Your task to perform on an android device: turn on location history Image 0: 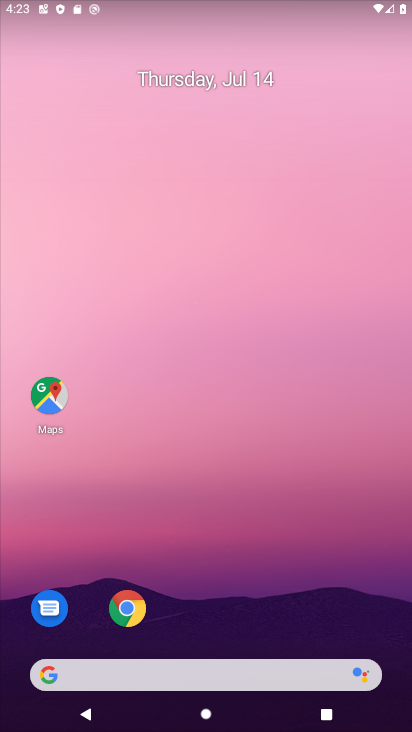
Step 0: drag from (0, 0) to (242, 241)
Your task to perform on an android device: turn on location history Image 1: 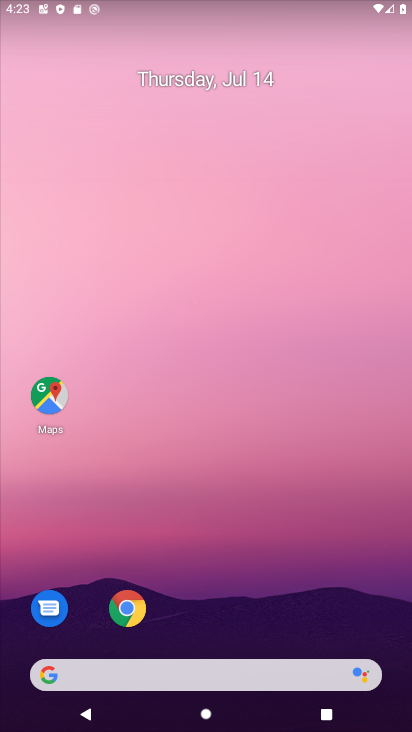
Step 1: drag from (19, 609) to (205, 261)
Your task to perform on an android device: turn on location history Image 2: 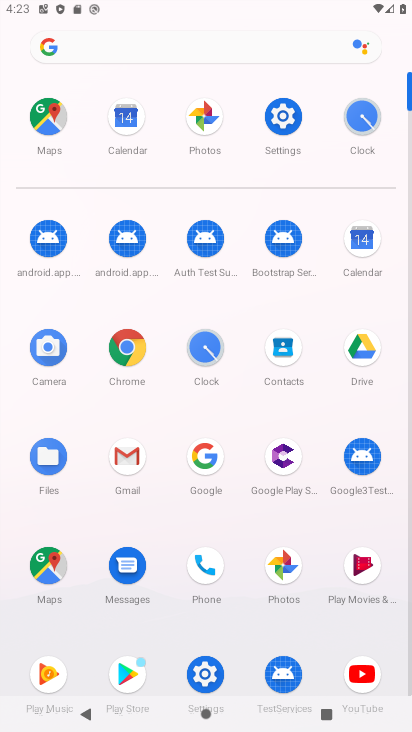
Step 2: click (285, 116)
Your task to perform on an android device: turn on location history Image 3: 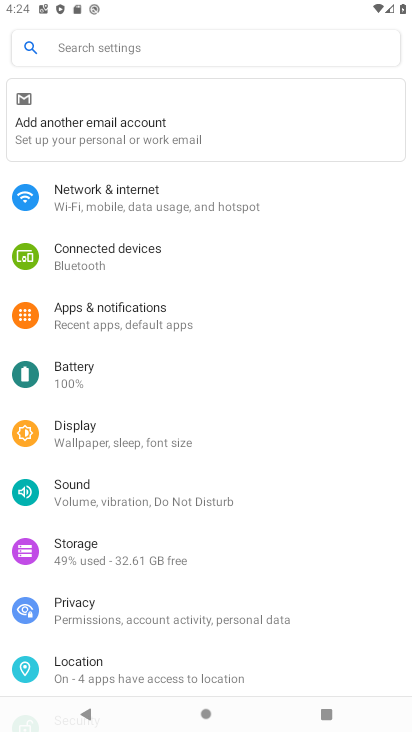
Step 3: click (92, 663)
Your task to perform on an android device: turn on location history Image 4: 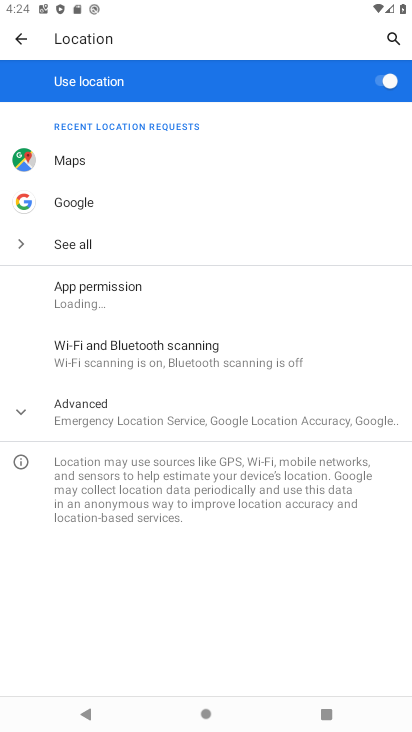
Step 4: click (149, 423)
Your task to perform on an android device: turn on location history Image 5: 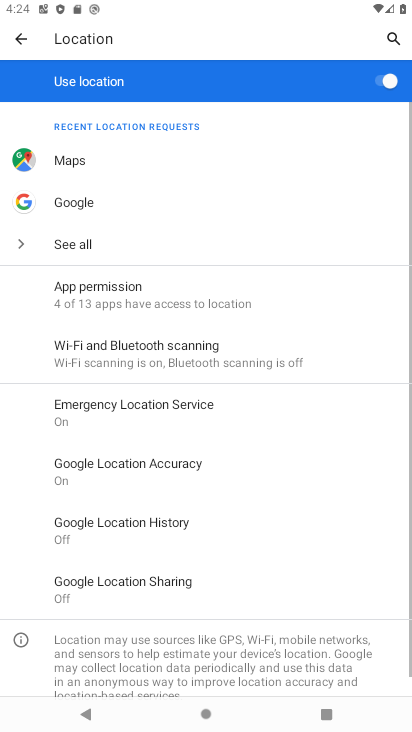
Step 5: click (141, 525)
Your task to perform on an android device: turn on location history Image 6: 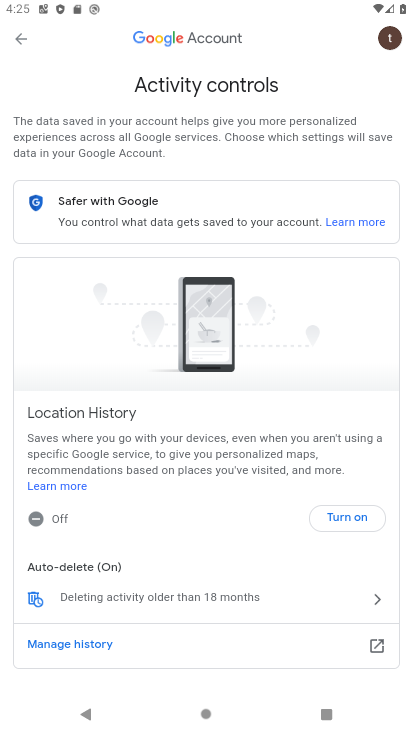
Step 6: task complete